Your task to perform on an android device: turn on translation in the chrome app Image 0: 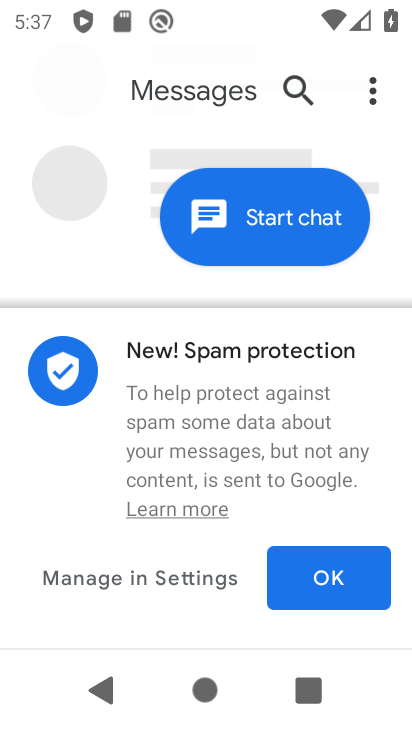
Step 0: press home button
Your task to perform on an android device: turn on translation in the chrome app Image 1: 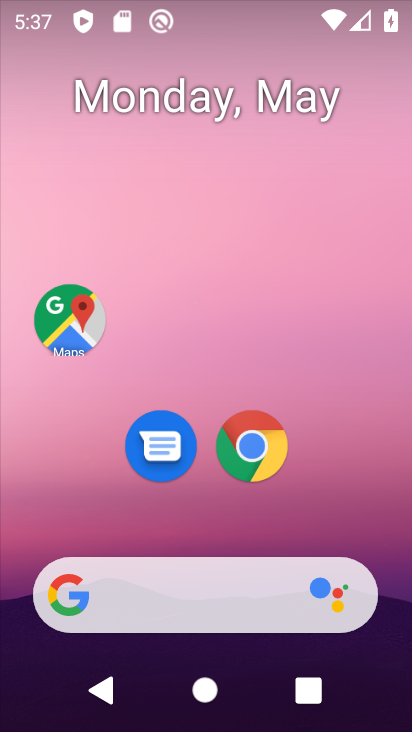
Step 1: click (261, 445)
Your task to perform on an android device: turn on translation in the chrome app Image 2: 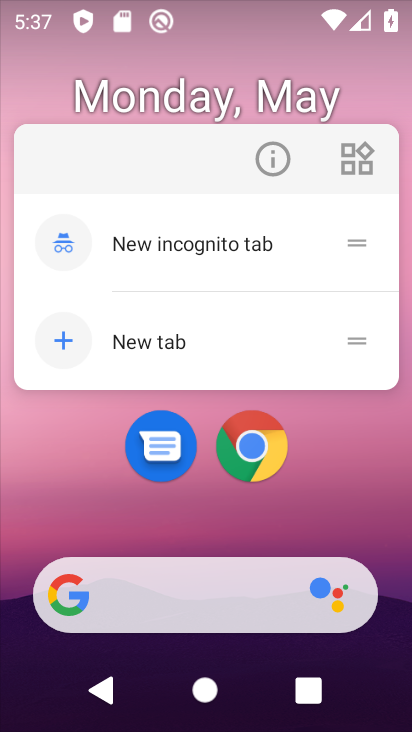
Step 2: click (337, 480)
Your task to perform on an android device: turn on translation in the chrome app Image 3: 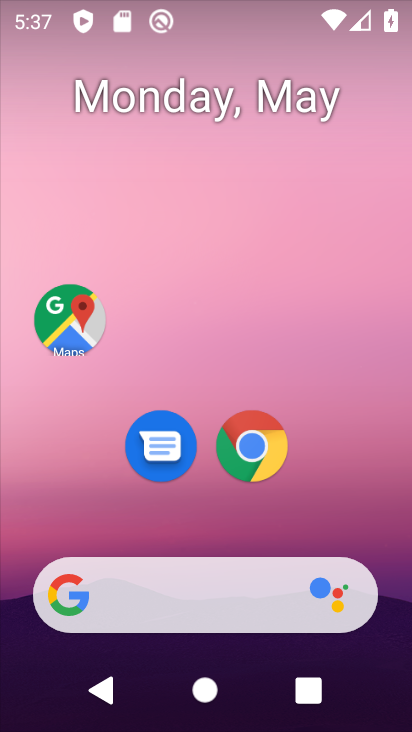
Step 3: drag from (307, 514) to (283, 113)
Your task to perform on an android device: turn on translation in the chrome app Image 4: 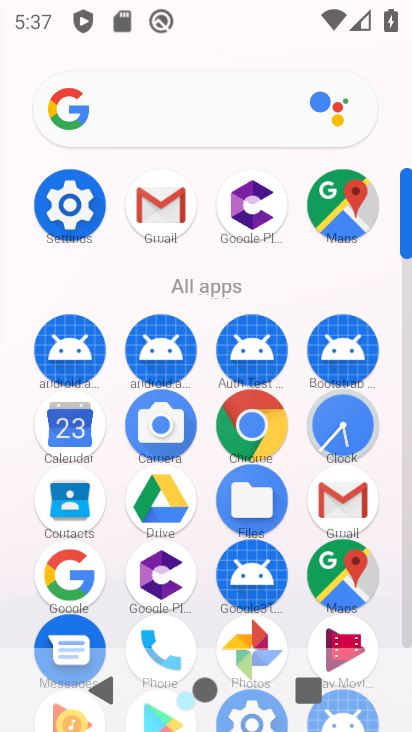
Step 4: click (243, 420)
Your task to perform on an android device: turn on translation in the chrome app Image 5: 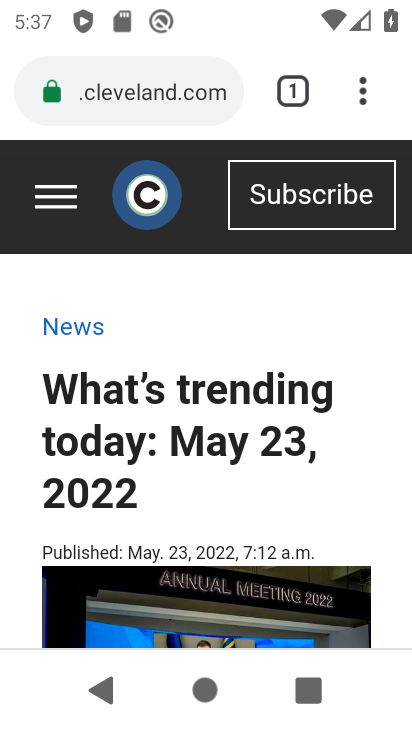
Step 5: drag from (358, 84) to (71, 463)
Your task to perform on an android device: turn on translation in the chrome app Image 6: 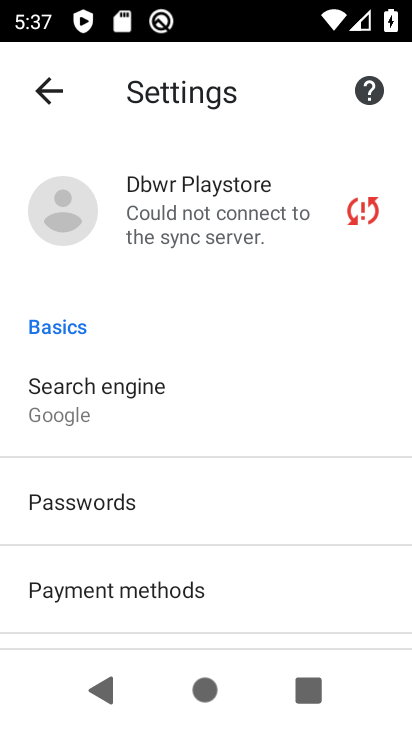
Step 6: drag from (322, 569) to (301, 223)
Your task to perform on an android device: turn on translation in the chrome app Image 7: 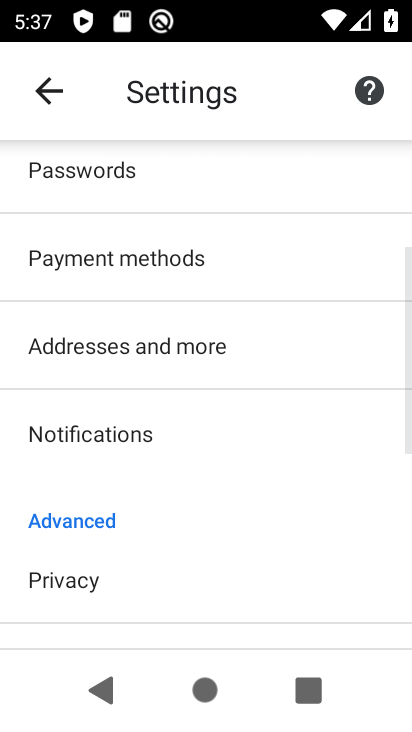
Step 7: drag from (267, 489) to (240, 257)
Your task to perform on an android device: turn on translation in the chrome app Image 8: 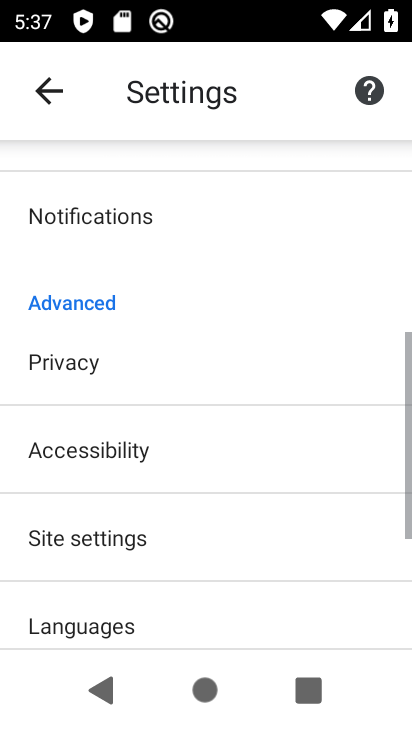
Step 8: drag from (245, 558) to (230, 307)
Your task to perform on an android device: turn on translation in the chrome app Image 9: 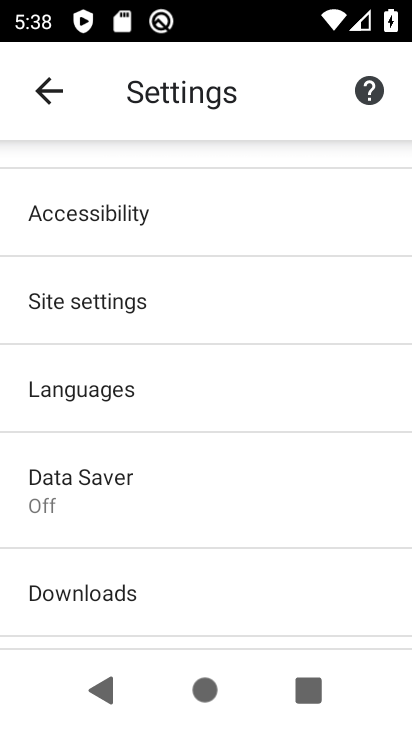
Step 9: click (80, 389)
Your task to perform on an android device: turn on translation in the chrome app Image 10: 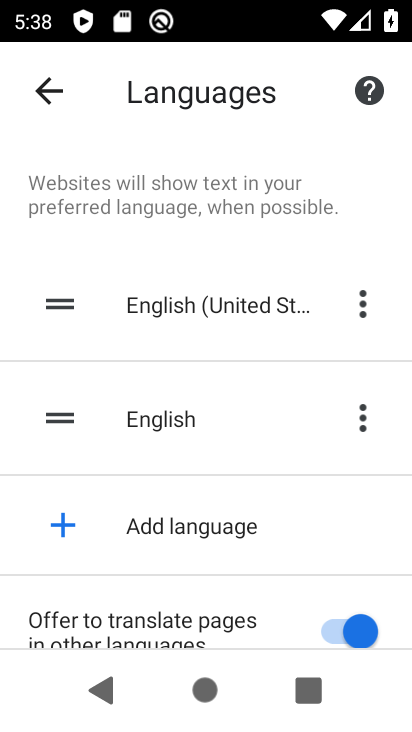
Step 10: task complete